Your task to perform on an android device: allow notifications from all sites in the chrome app Image 0: 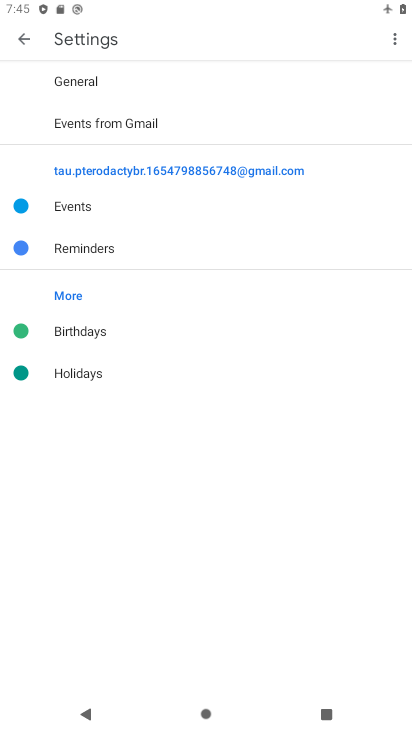
Step 0: press home button
Your task to perform on an android device: allow notifications from all sites in the chrome app Image 1: 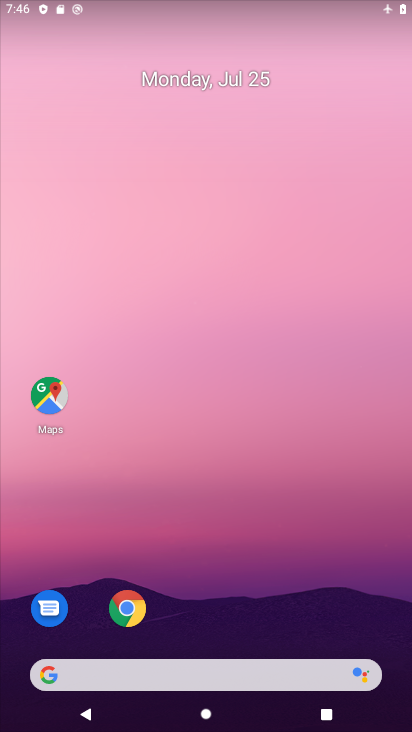
Step 1: drag from (297, 601) to (326, 79)
Your task to perform on an android device: allow notifications from all sites in the chrome app Image 2: 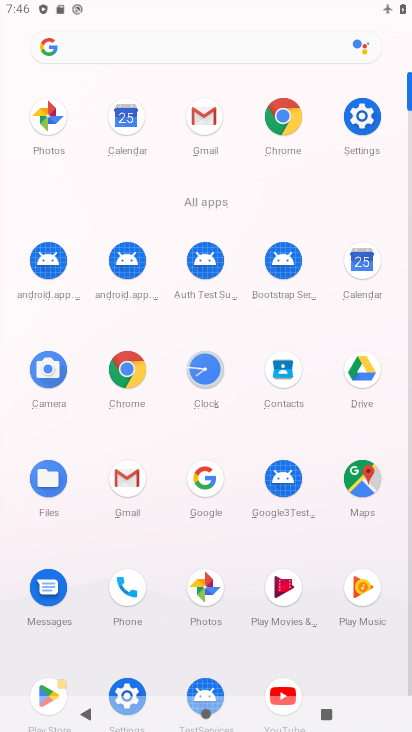
Step 2: click (295, 119)
Your task to perform on an android device: allow notifications from all sites in the chrome app Image 3: 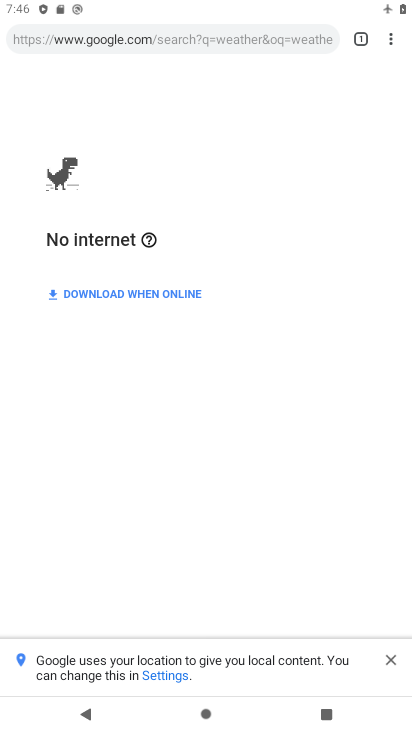
Step 3: click (404, 36)
Your task to perform on an android device: allow notifications from all sites in the chrome app Image 4: 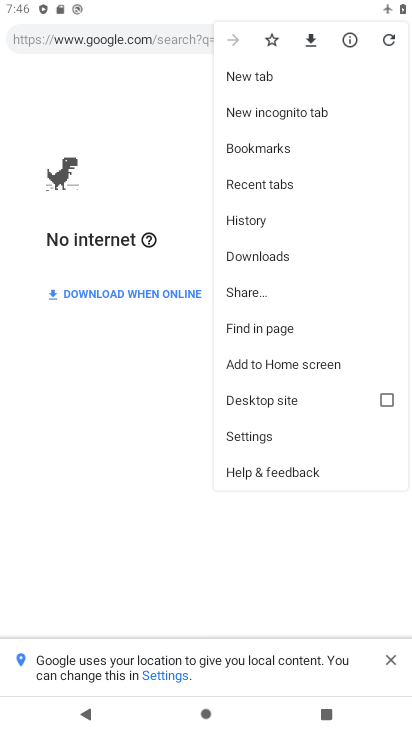
Step 4: click (291, 443)
Your task to perform on an android device: allow notifications from all sites in the chrome app Image 5: 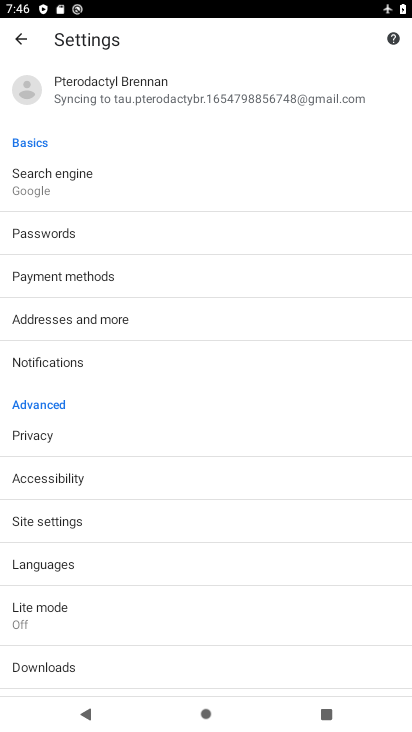
Step 5: click (54, 516)
Your task to perform on an android device: allow notifications from all sites in the chrome app Image 6: 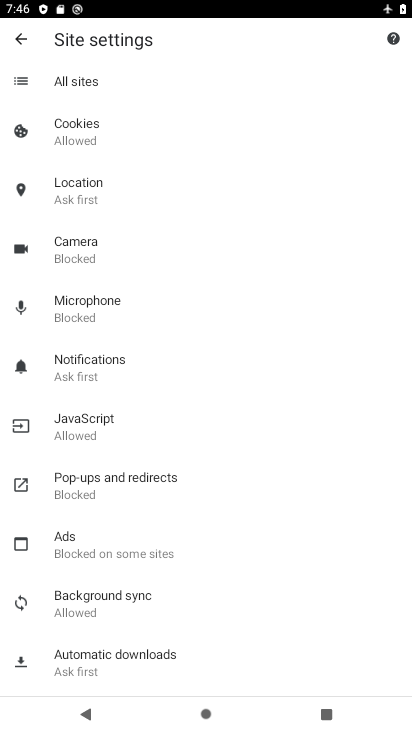
Step 6: click (68, 364)
Your task to perform on an android device: allow notifications from all sites in the chrome app Image 7: 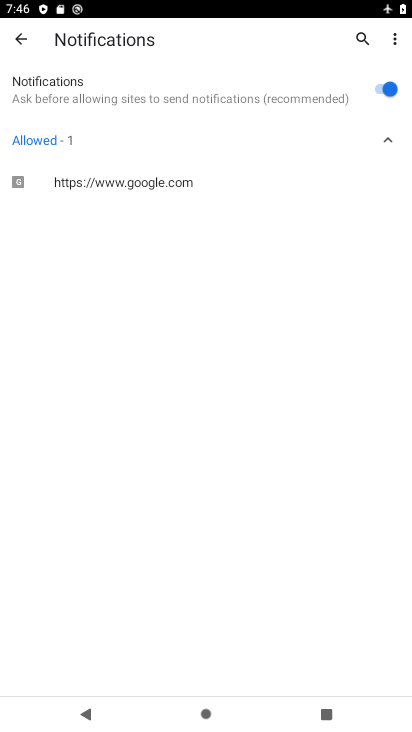
Step 7: task complete